Your task to perform on an android device: toggle data saver in the chrome app Image 0: 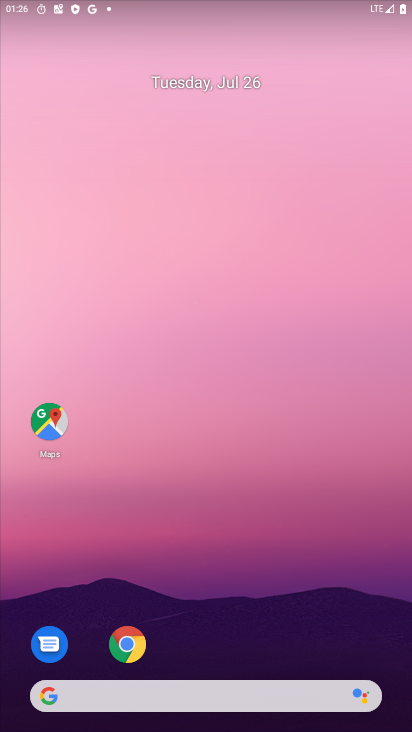
Step 0: click (138, 645)
Your task to perform on an android device: toggle data saver in the chrome app Image 1: 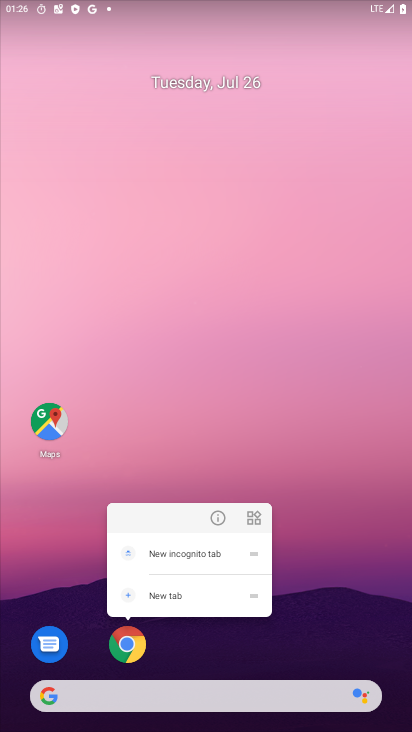
Step 1: click (132, 648)
Your task to perform on an android device: toggle data saver in the chrome app Image 2: 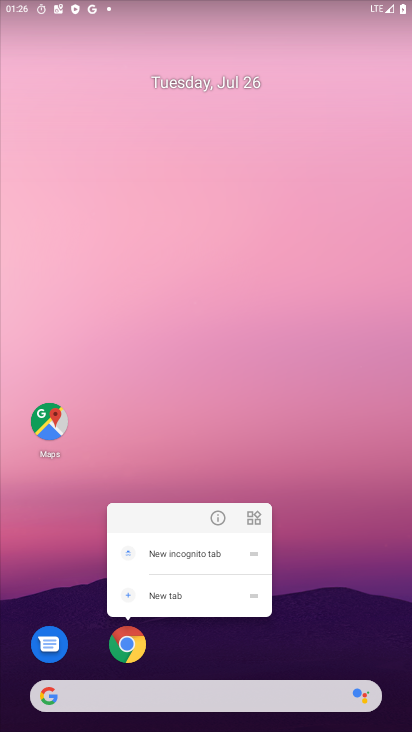
Step 2: click (132, 648)
Your task to perform on an android device: toggle data saver in the chrome app Image 3: 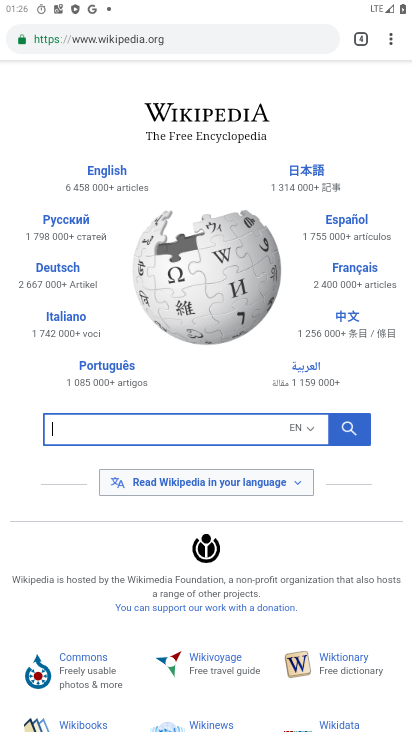
Step 3: drag from (392, 35) to (262, 475)
Your task to perform on an android device: toggle data saver in the chrome app Image 4: 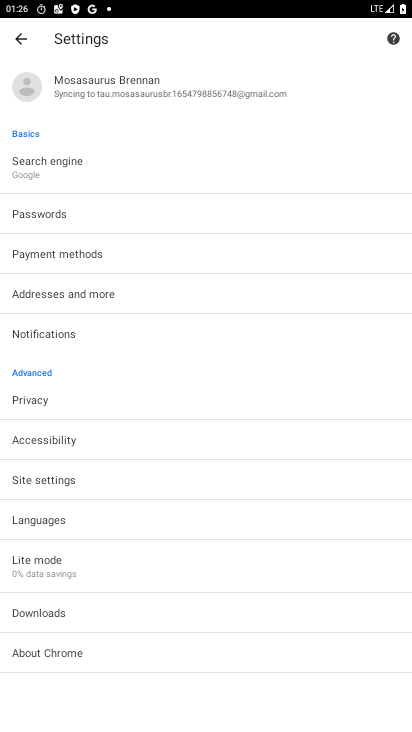
Step 4: click (48, 570)
Your task to perform on an android device: toggle data saver in the chrome app Image 5: 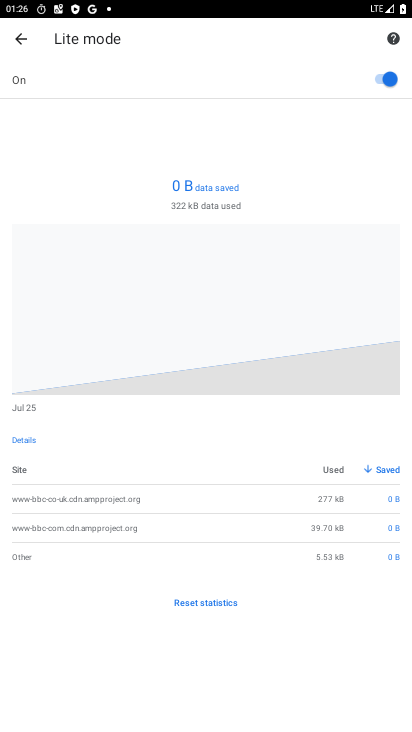
Step 5: click (389, 82)
Your task to perform on an android device: toggle data saver in the chrome app Image 6: 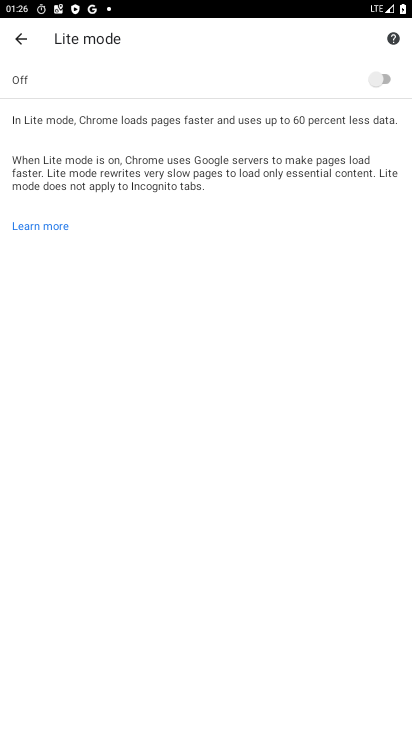
Step 6: task complete